Your task to perform on an android device: set default search engine in the chrome app Image 0: 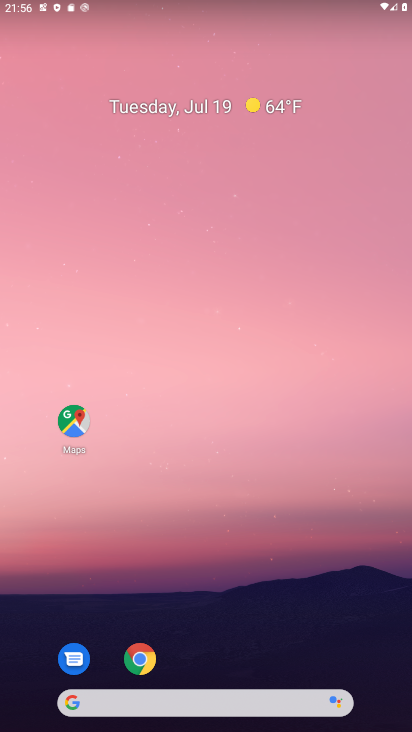
Step 0: click (137, 657)
Your task to perform on an android device: set default search engine in the chrome app Image 1: 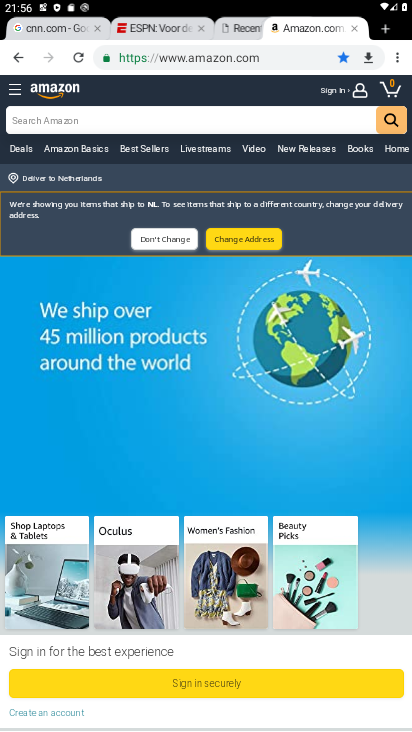
Step 1: click (392, 61)
Your task to perform on an android device: set default search engine in the chrome app Image 2: 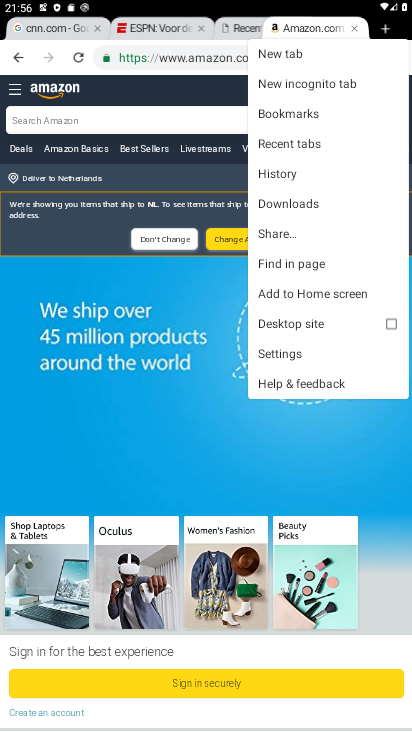
Step 2: click (278, 346)
Your task to perform on an android device: set default search engine in the chrome app Image 3: 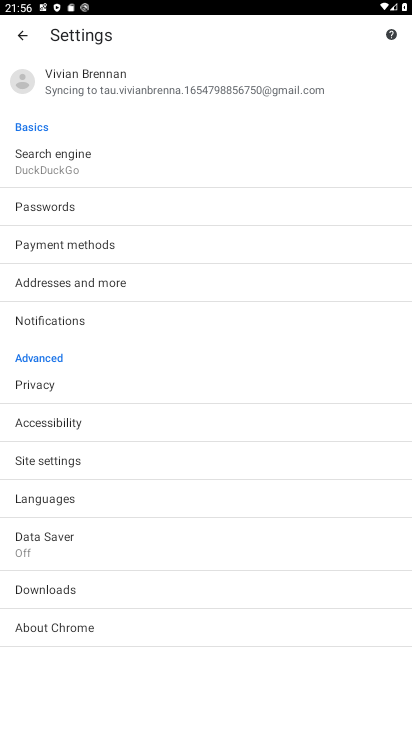
Step 3: click (105, 154)
Your task to perform on an android device: set default search engine in the chrome app Image 4: 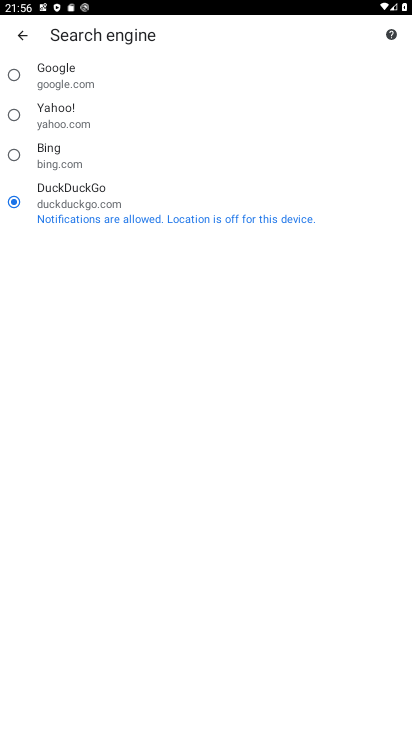
Step 4: click (118, 154)
Your task to perform on an android device: set default search engine in the chrome app Image 5: 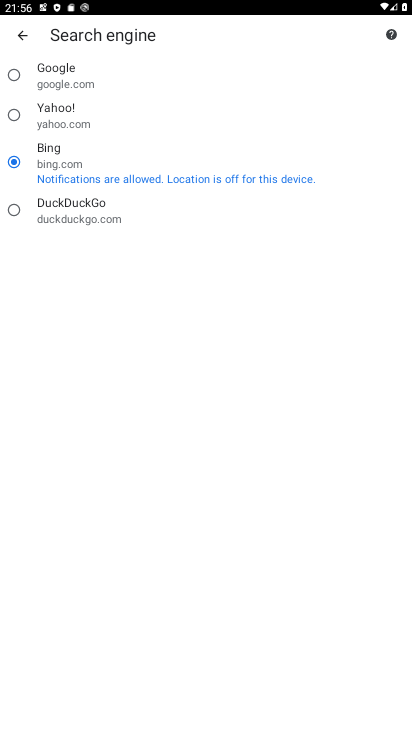
Step 5: task complete